Your task to perform on an android device: Open wifi settings Image 0: 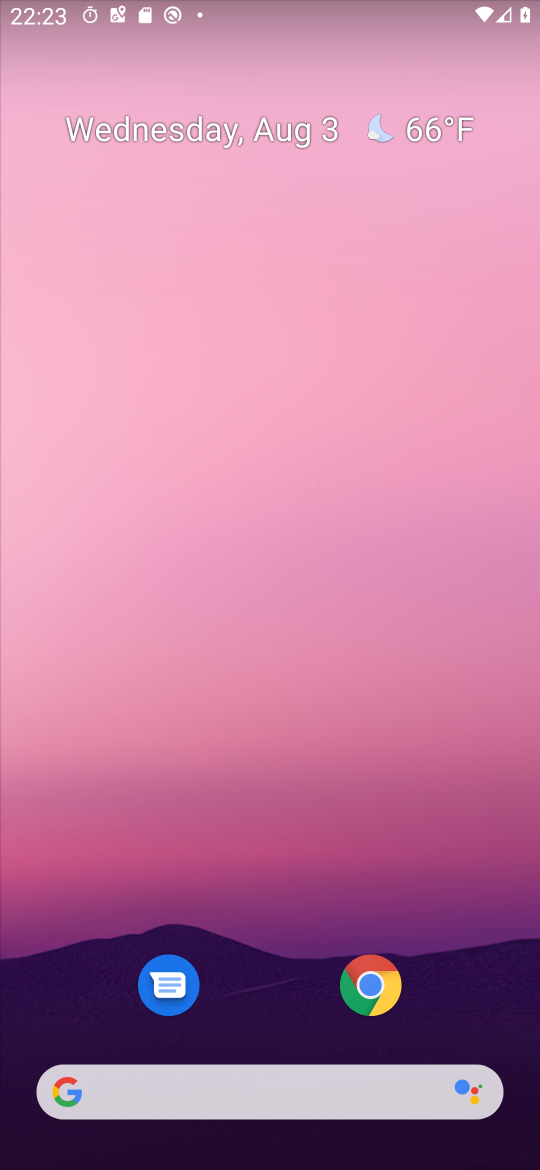
Step 0: drag from (235, 779) to (182, 195)
Your task to perform on an android device: Open wifi settings Image 1: 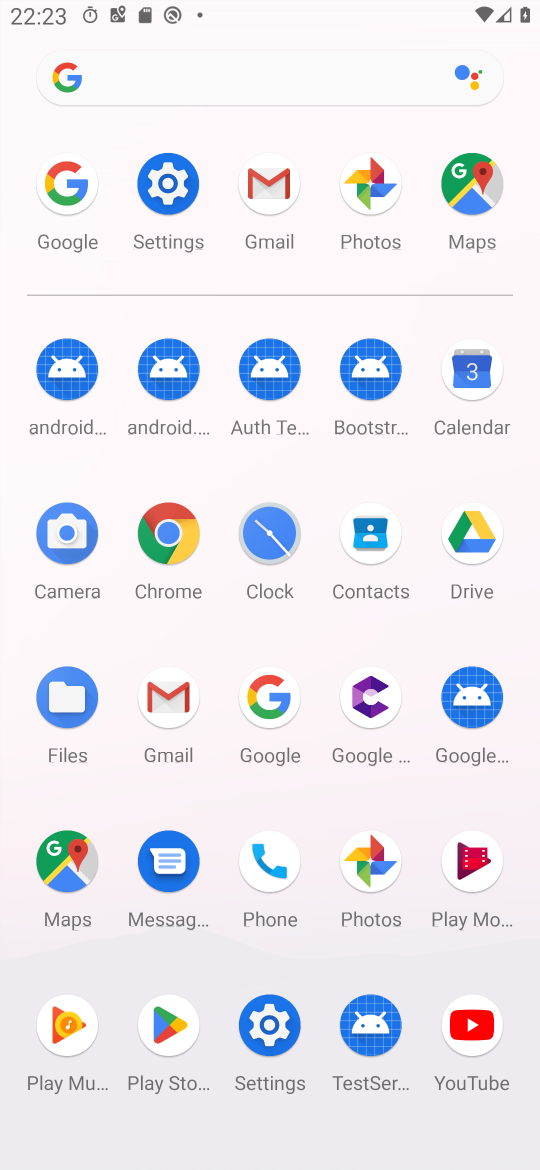
Step 1: click (180, 194)
Your task to perform on an android device: Open wifi settings Image 2: 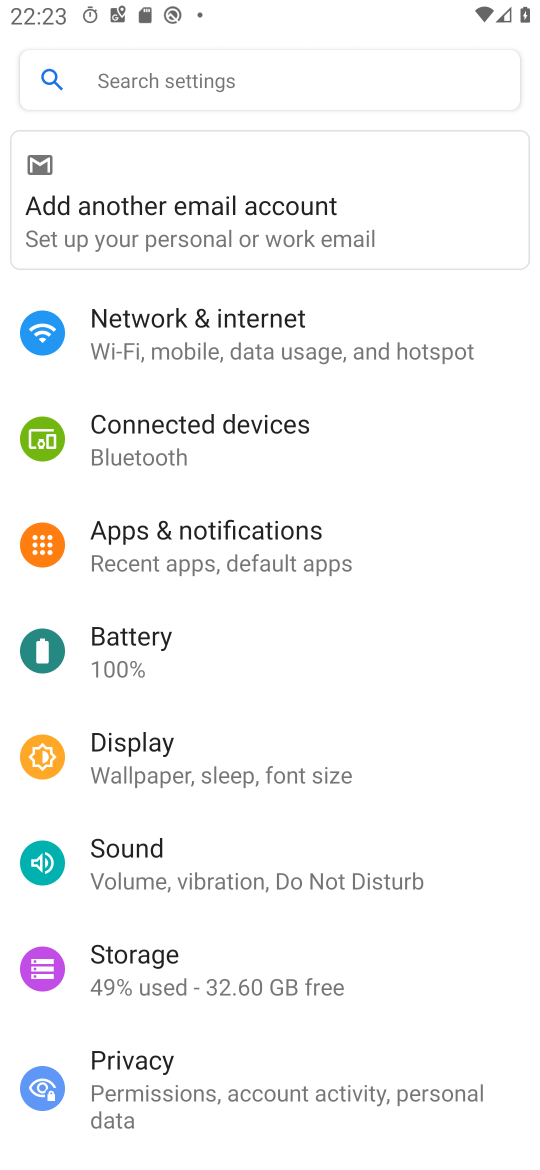
Step 2: click (161, 341)
Your task to perform on an android device: Open wifi settings Image 3: 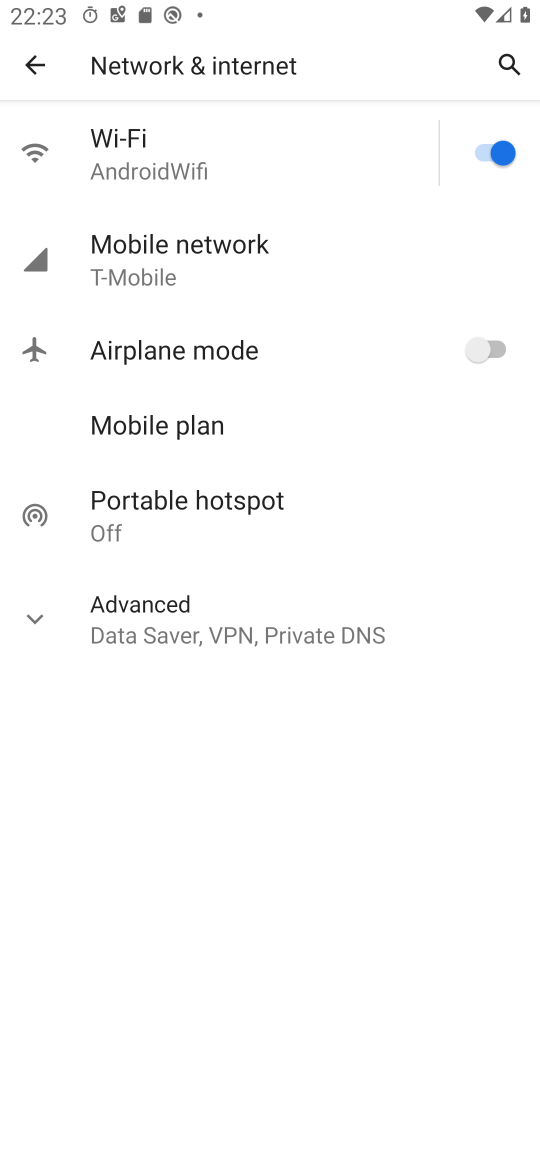
Step 3: click (213, 123)
Your task to perform on an android device: Open wifi settings Image 4: 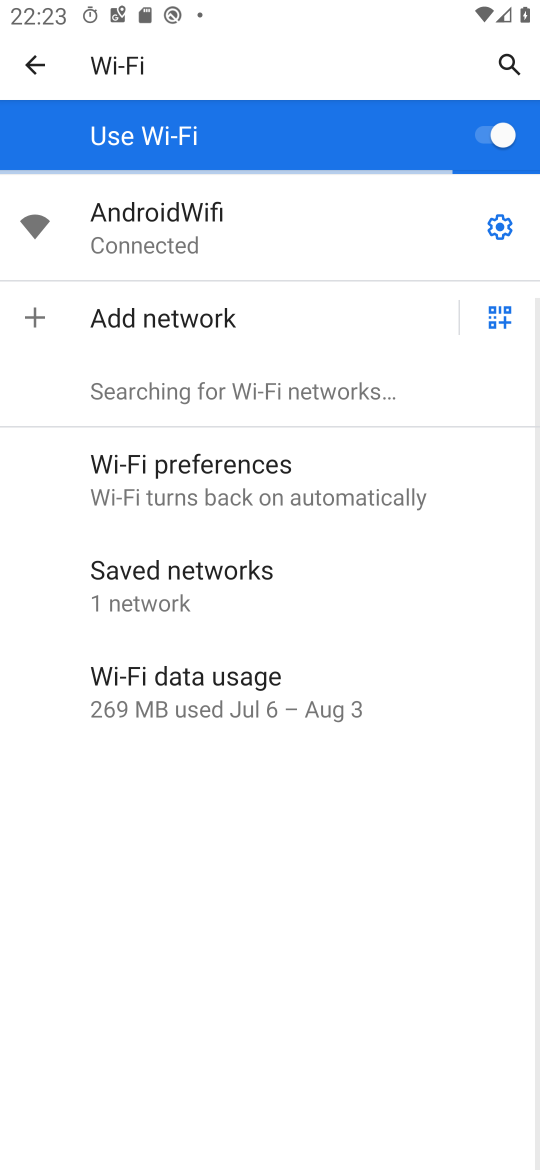
Step 4: task complete